Your task to perform on an android device: change the clock display to analog Image 0: 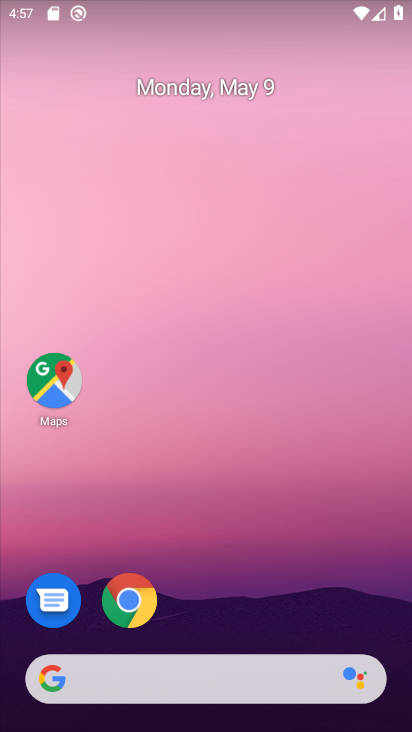
Step 0: drag from (308, 642) to (377, 1)
Your task to perform on an android device: change the clock display to analog Image 1: 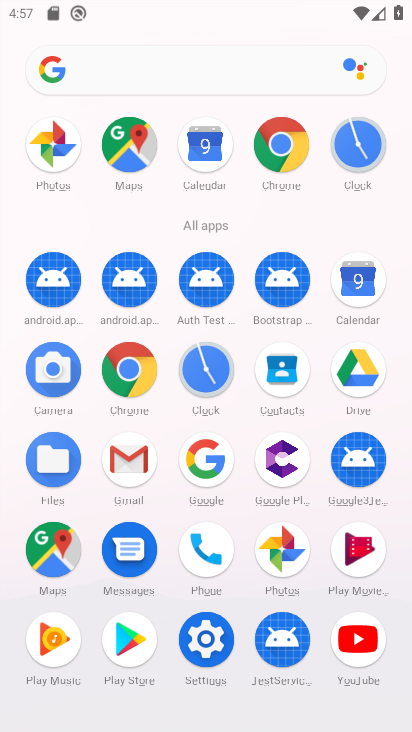
Step 1: click (211, 366)
Your task to perform on an android device: change the clock display to analog Image 2: 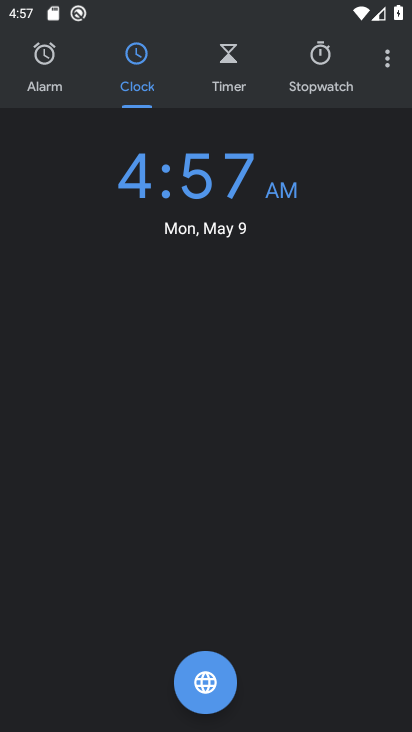
Step 2: click (390, 59)
Your task to perform on an android device: change the clock display to analog Image 3: 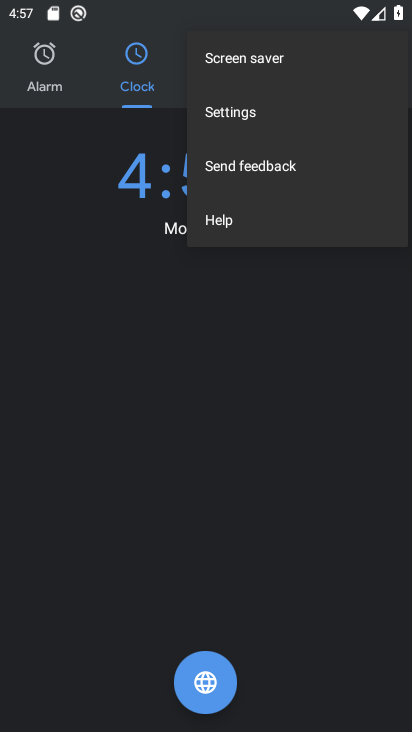
Step 3: click (255, 112)
Your task to perform on an android device: change the clock display to analog Image 4: 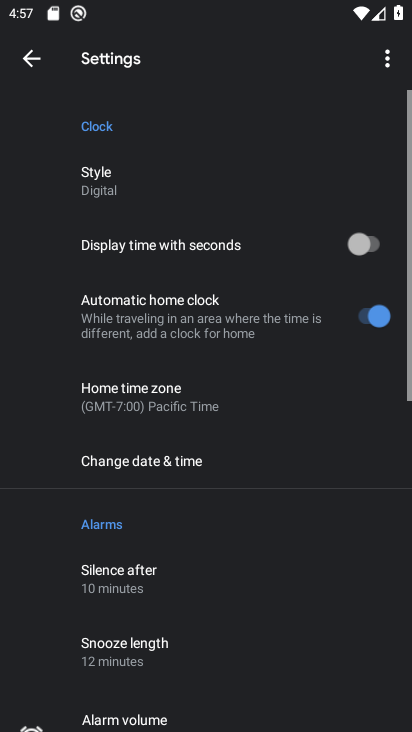
Step 4: click (156, 194)
Your task to perform on an android device: change the clock display to analog Image 5: 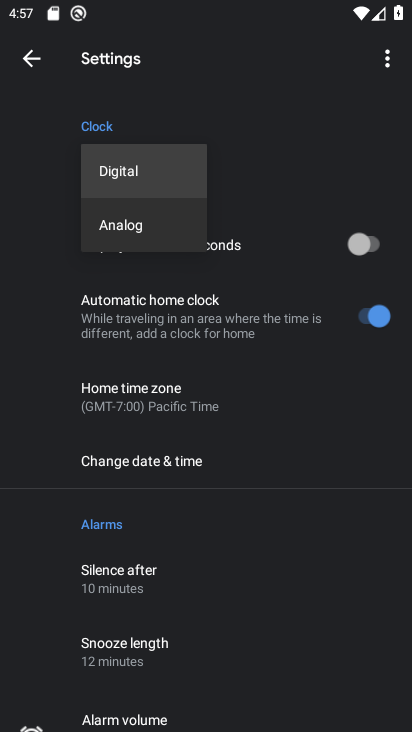
Step 5: click (143, 236)
Your task to perform on an android device: change the clock display to analog Image 6: 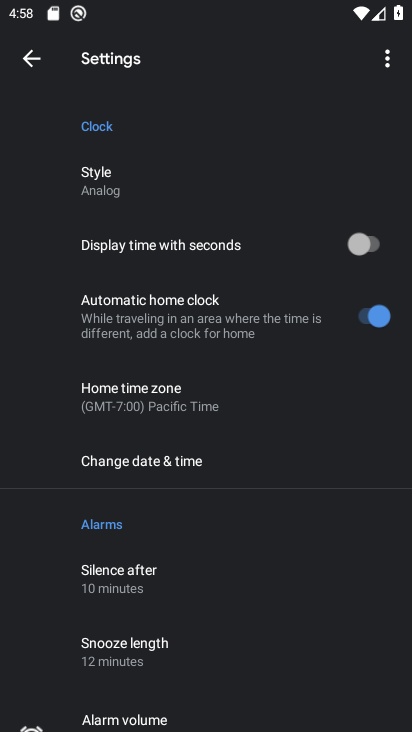
Step 6: task complete